Your task to perform on an android device: Open the phone app and click the voicemail tab. Image 0: 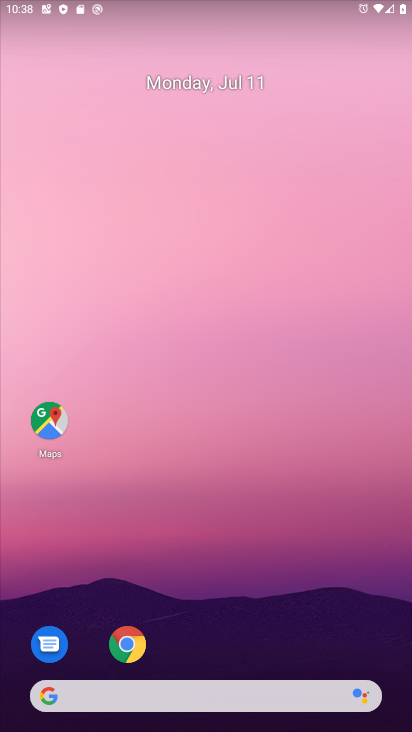
Step 0: drag from (231, 651) to (257, 42)
Your task to perform on an android device: Open the phone app and click the voicemail tab. Image 1: 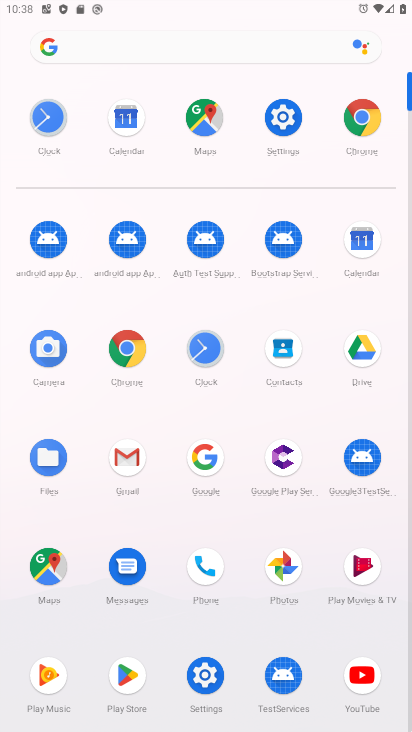
Step 1: click (203, 567)
Your task to perform on an android device: Open the phone app and click the voicemail tab. Image 2: 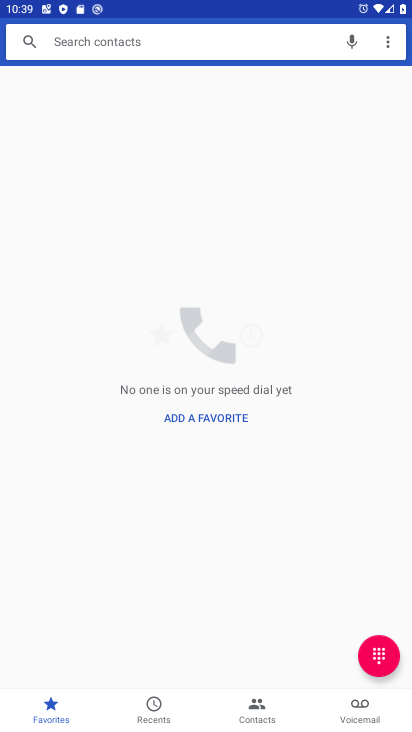
Step 2: click (349, 708)
Your task to perform on an android device: Open the phone app and click the voicemail tab. Image 3: 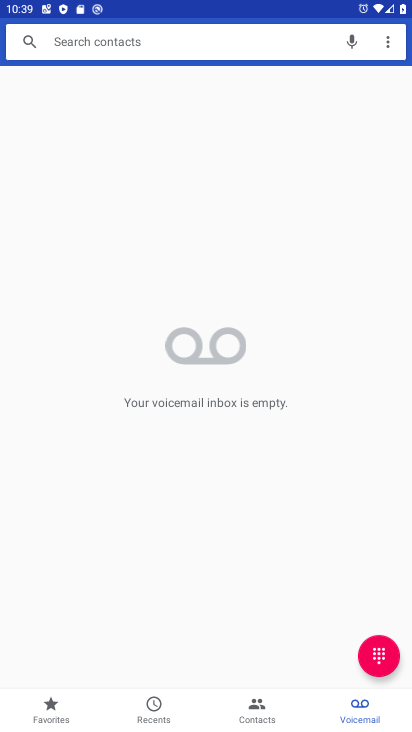
Step 3: task complete